Your task to perform on an android device: When is my next meeting? Image 0: 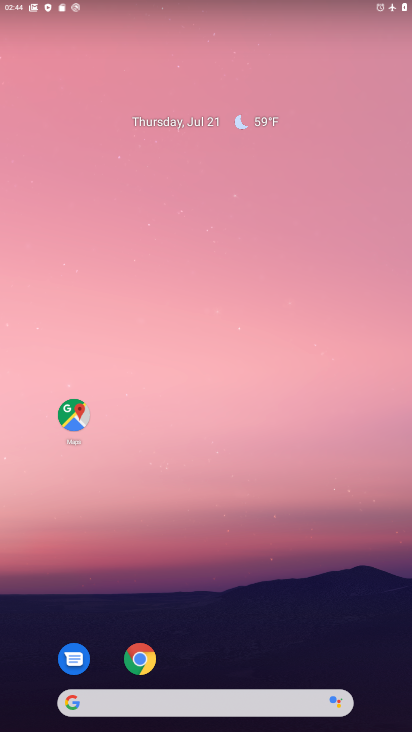
Step 0: drag from (327, 569) to (278, 2)
Your task to perform on an android device: When is my next meeting? Image 1: 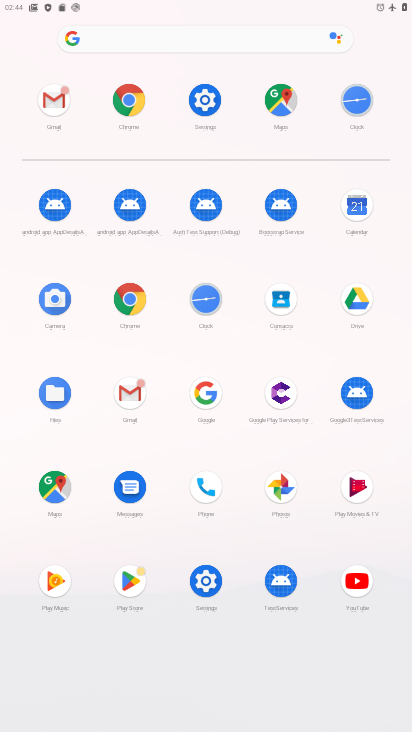
Step 1: click (353, 208)
Your task to perform on an android device: When is my next meeting? Image 2: 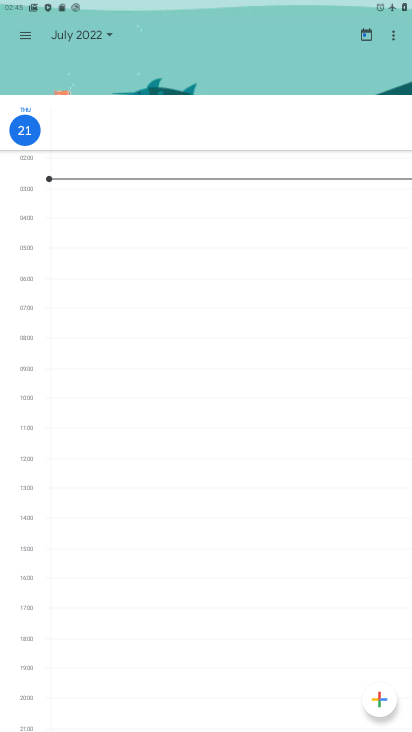
Step 2: task complete